Your task to perform on an android device: open app "Indeed Job Search" (install if not already installed) Image 0: 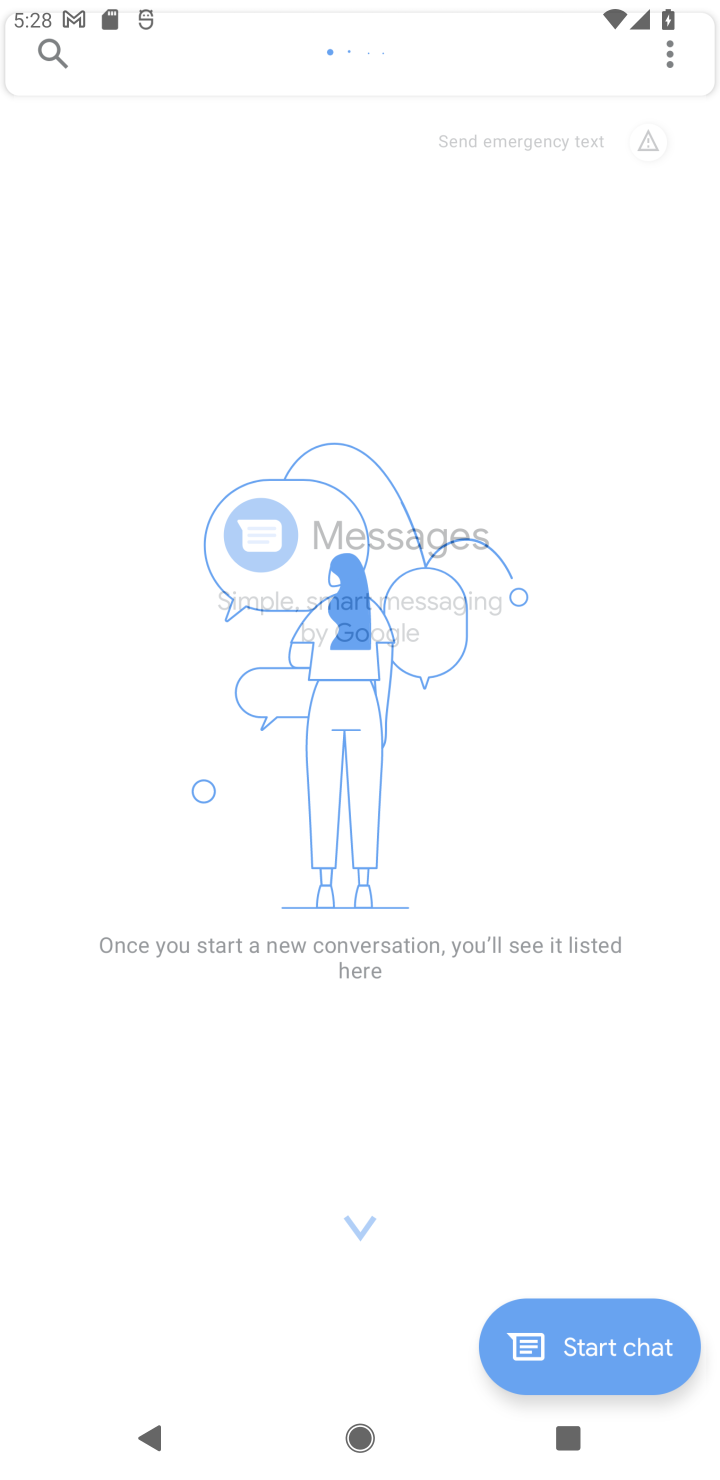
Step 0: press home button
Your task to perform on an android device: open app "Indeed Job Search" (install if not already installed) Image 1: 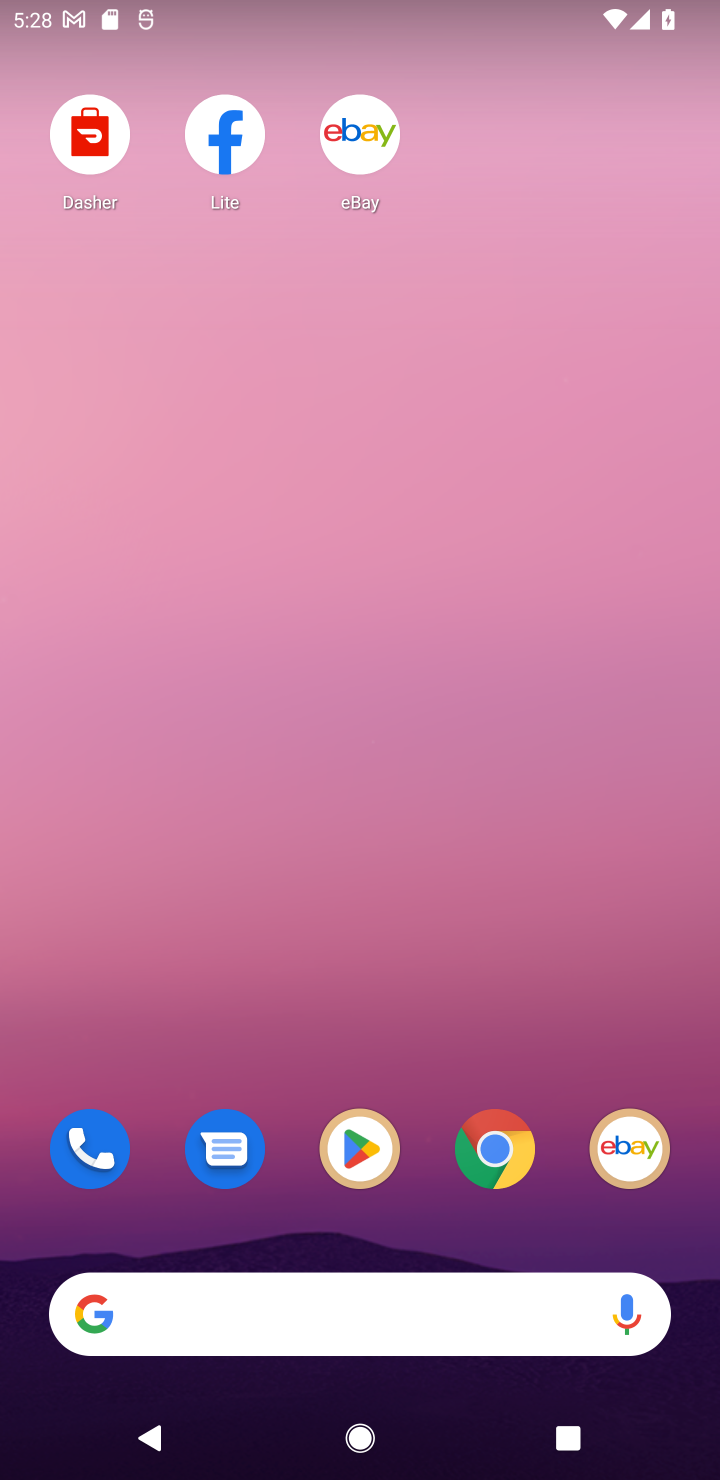
Step 1: press home button
Your task to perform on an android device: open app "Indeed Job Search" (install if not already installed) Image 2: 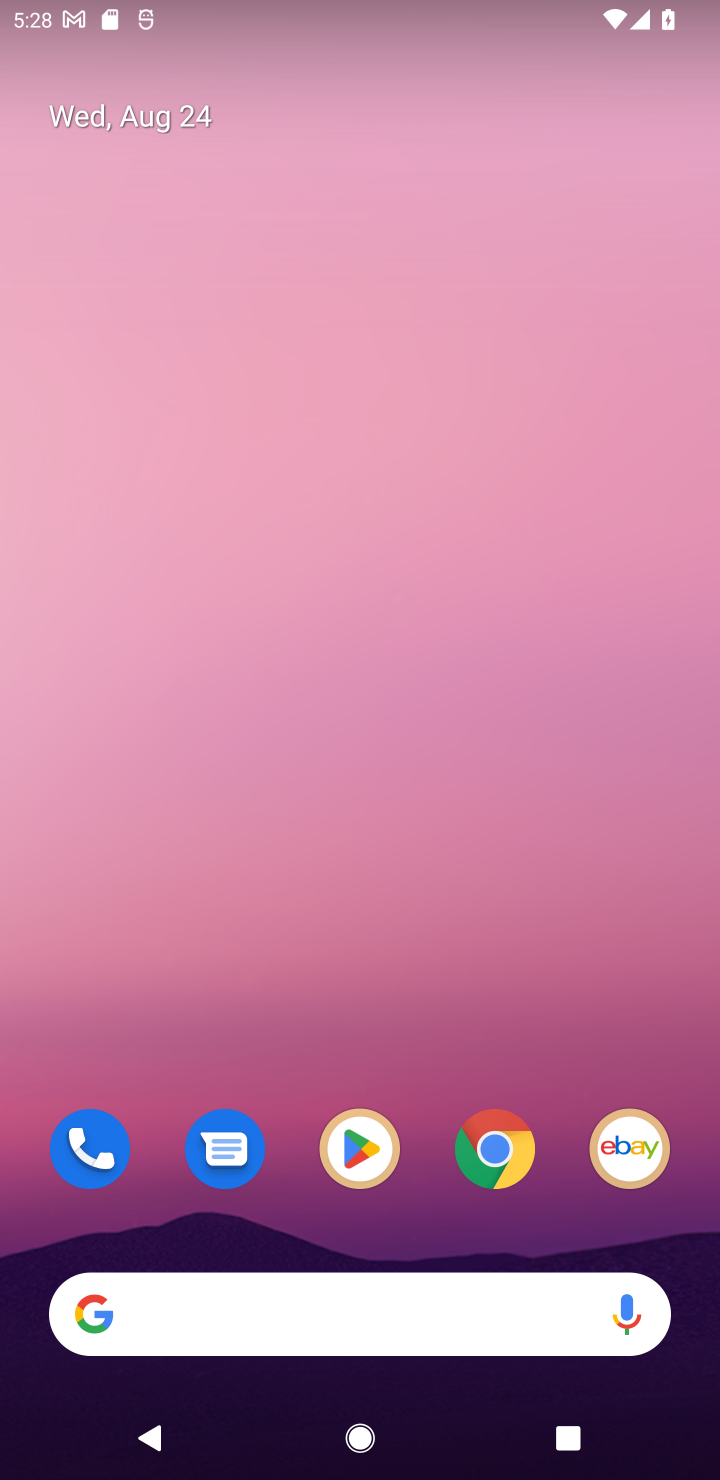
Step 2: click (357, 1145)
Your task to perform on an android device: open app "Indeed Job Search" (install if not already installed) Image 3: 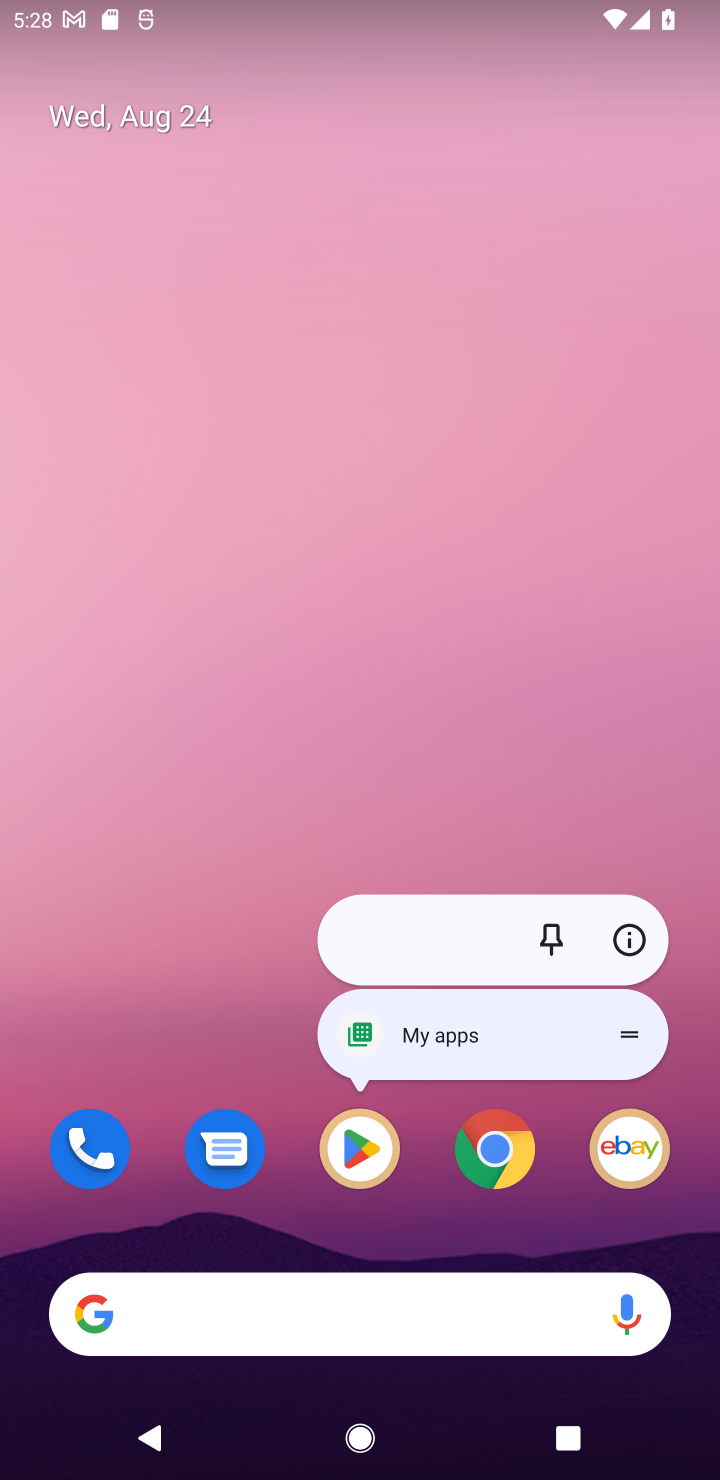
Step 3: click (357, 1149)
Your task to perform on an android device: open app "Indeed Job Search" (install if not already installed) Image 4: 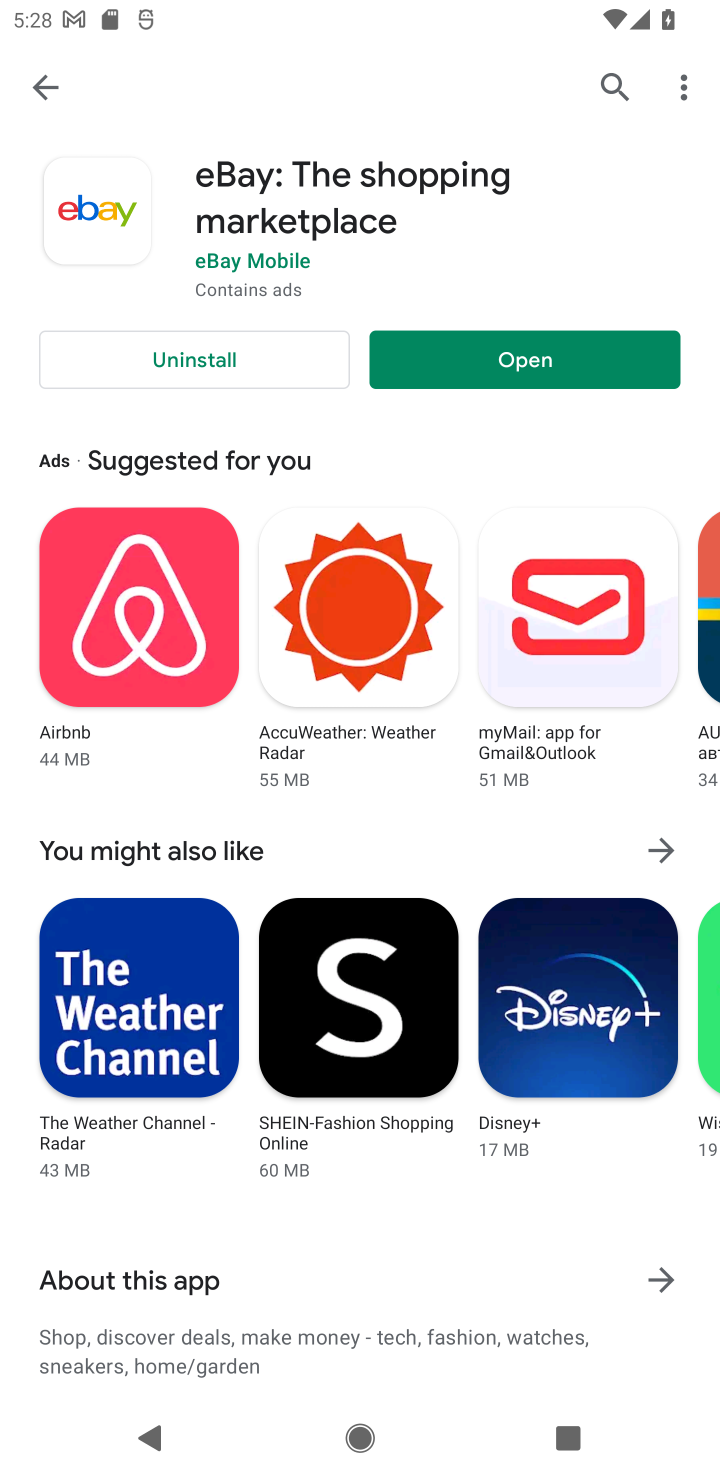
Step 4: click (607, 79)
Your task to perform on an android device: open app "Indeed Job Search" (install if not already installed) Image 5: 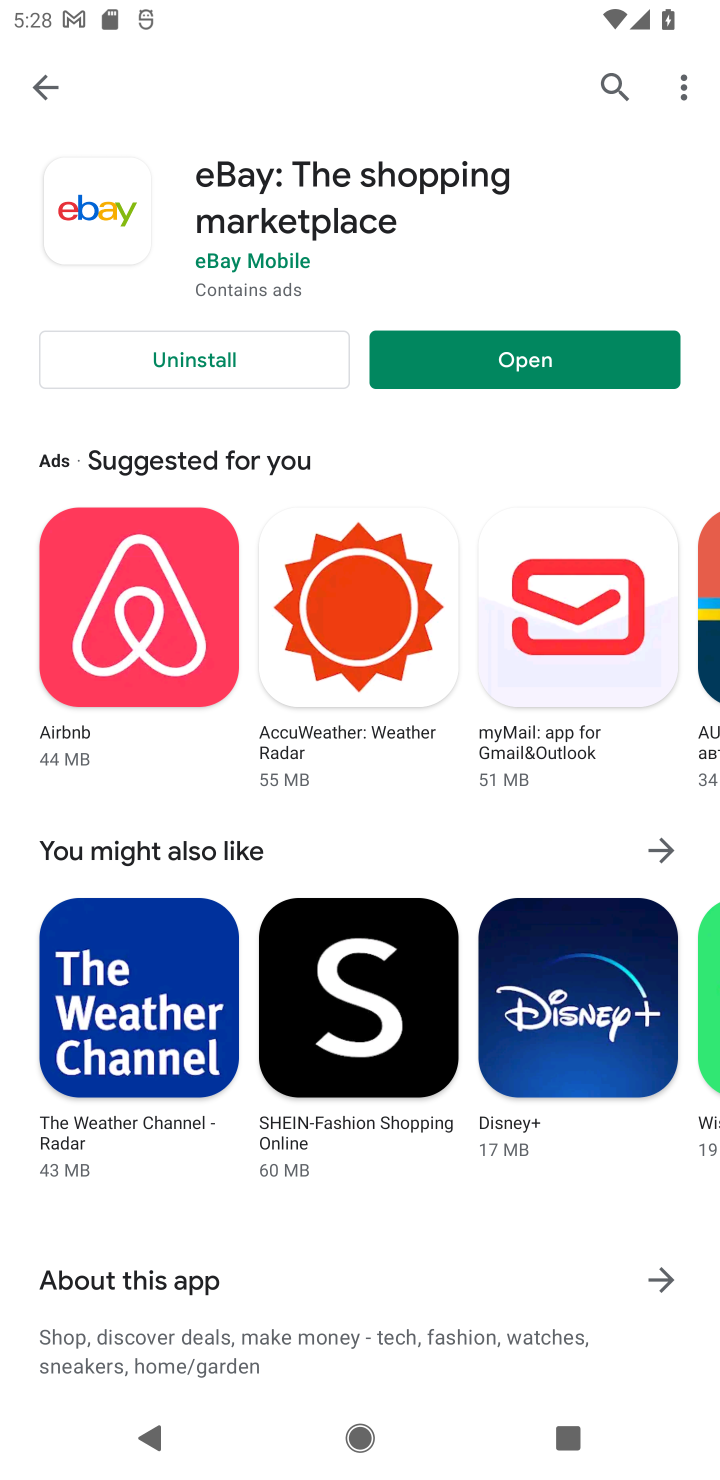
Step 5: click (601, 74)
Your task to perform on an android device: open app "Indeed Job Search" (install if not already installed) Image 6: 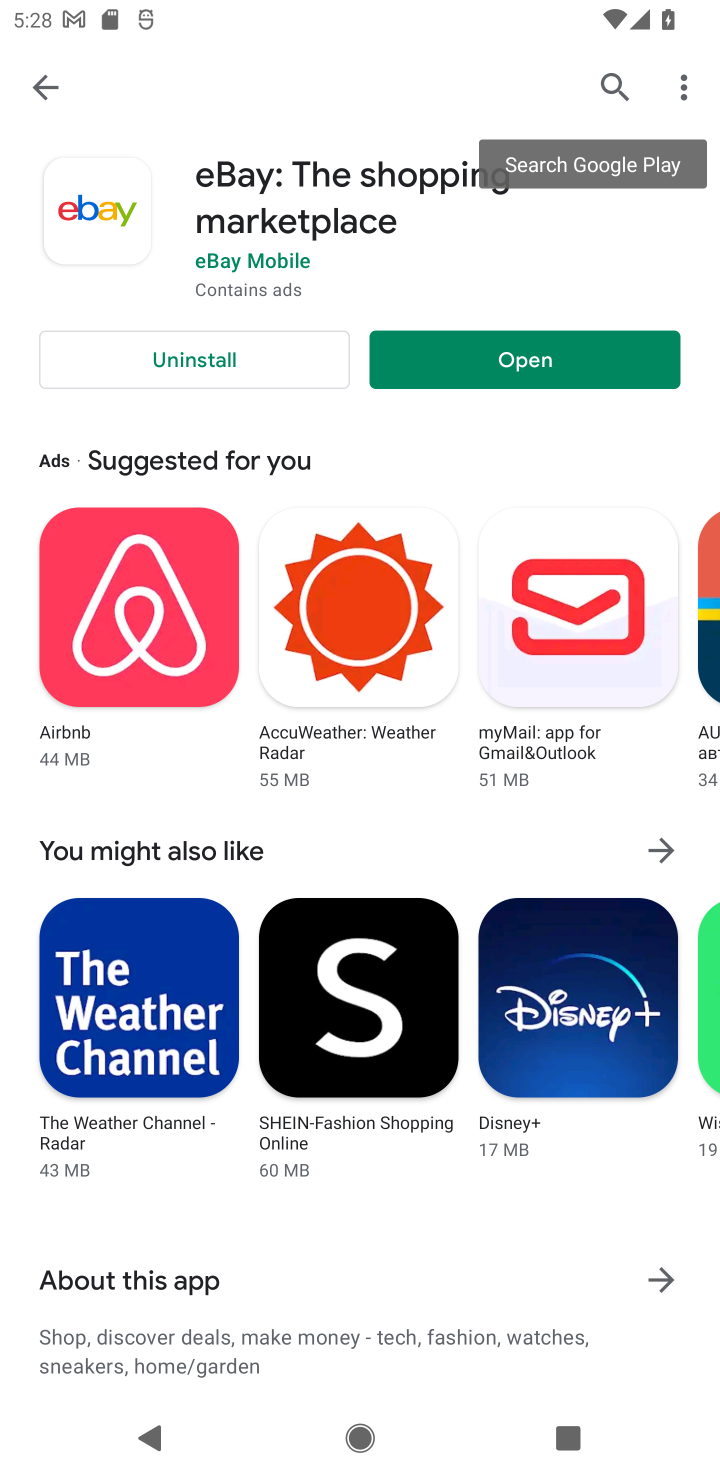
Step 6: click (601, 79)
Your task to perform on an android device: open app "Indeed Job Search" (install if not already installed) Image 7: 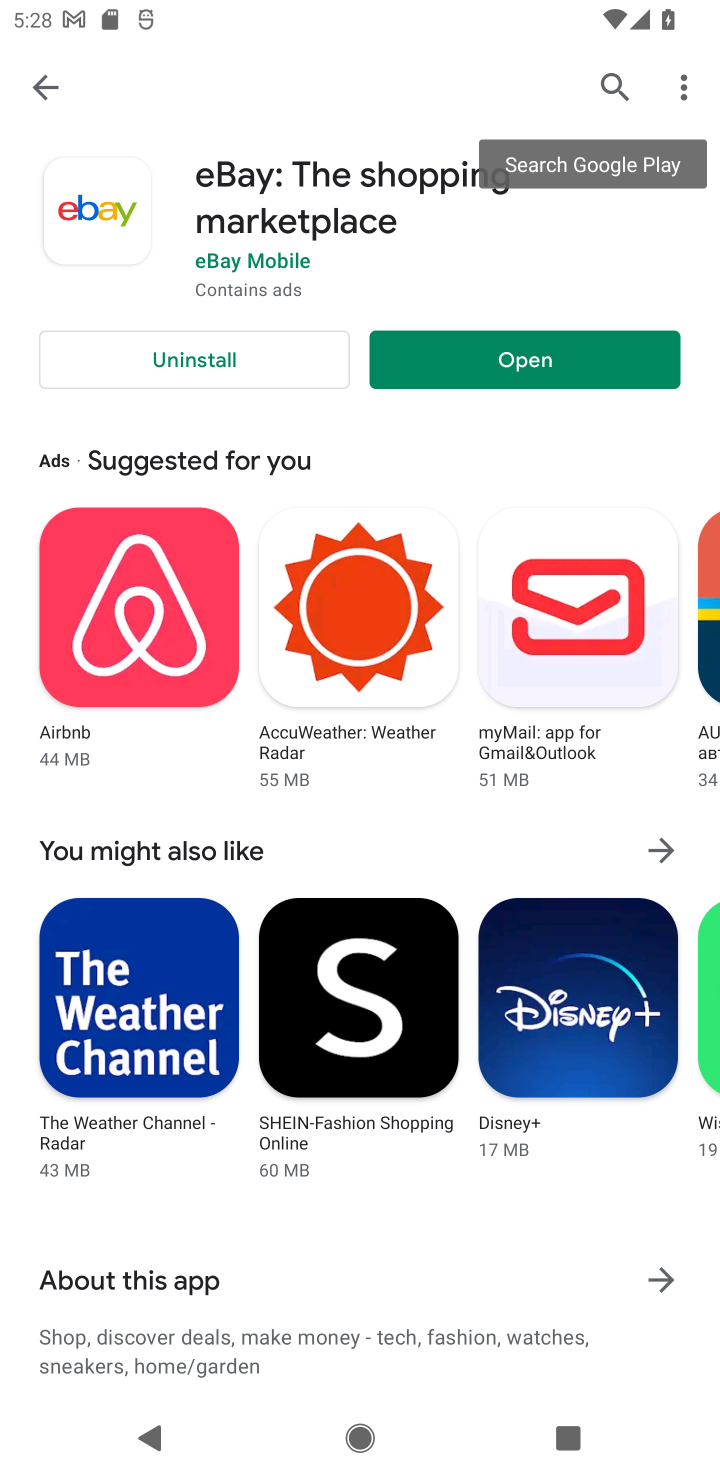
Step 7: click (608, 85)
Your task to perform on an android device: open app "Indeed Job Search" (install if not already installed) Image 8: 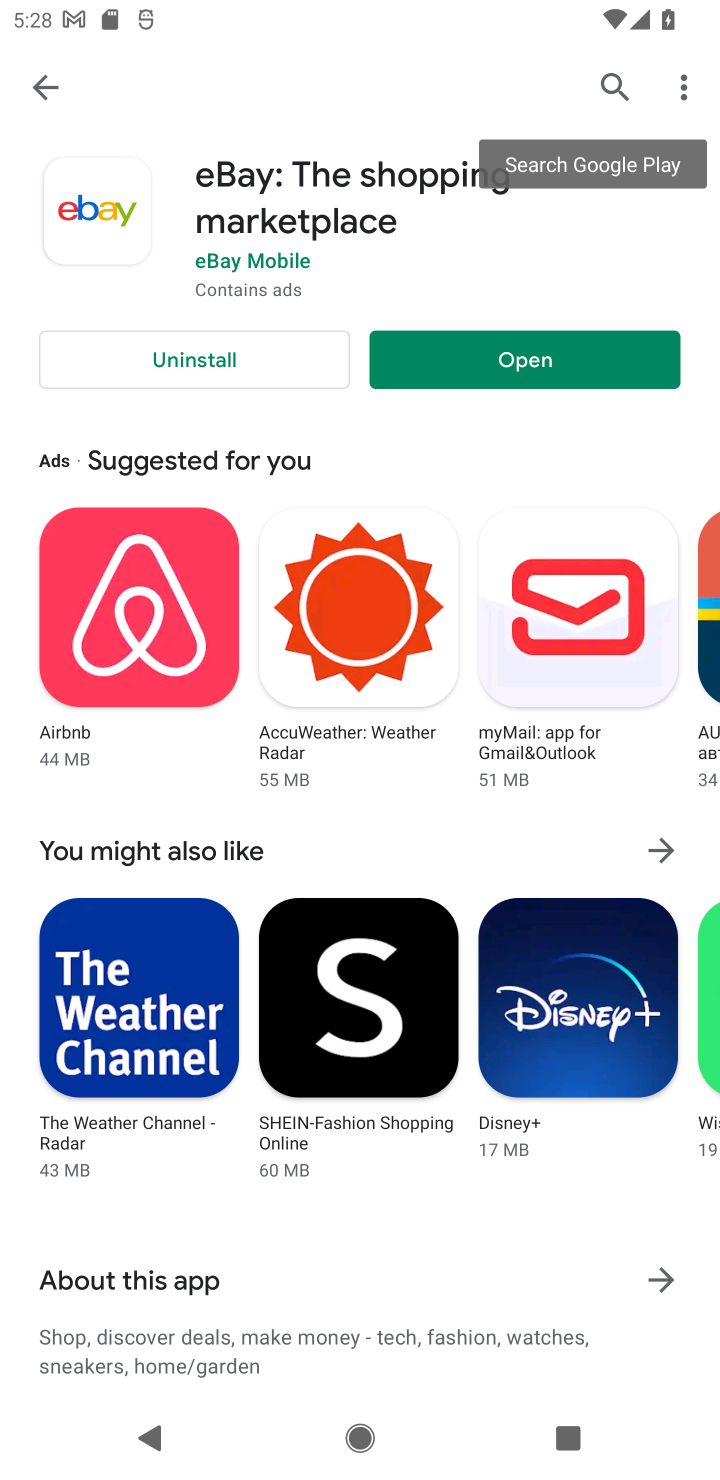
Step 8: click (572, 81)
Your task to perform on an android device: open app "Indeed Job Search" (install if not already installed) Image 9: 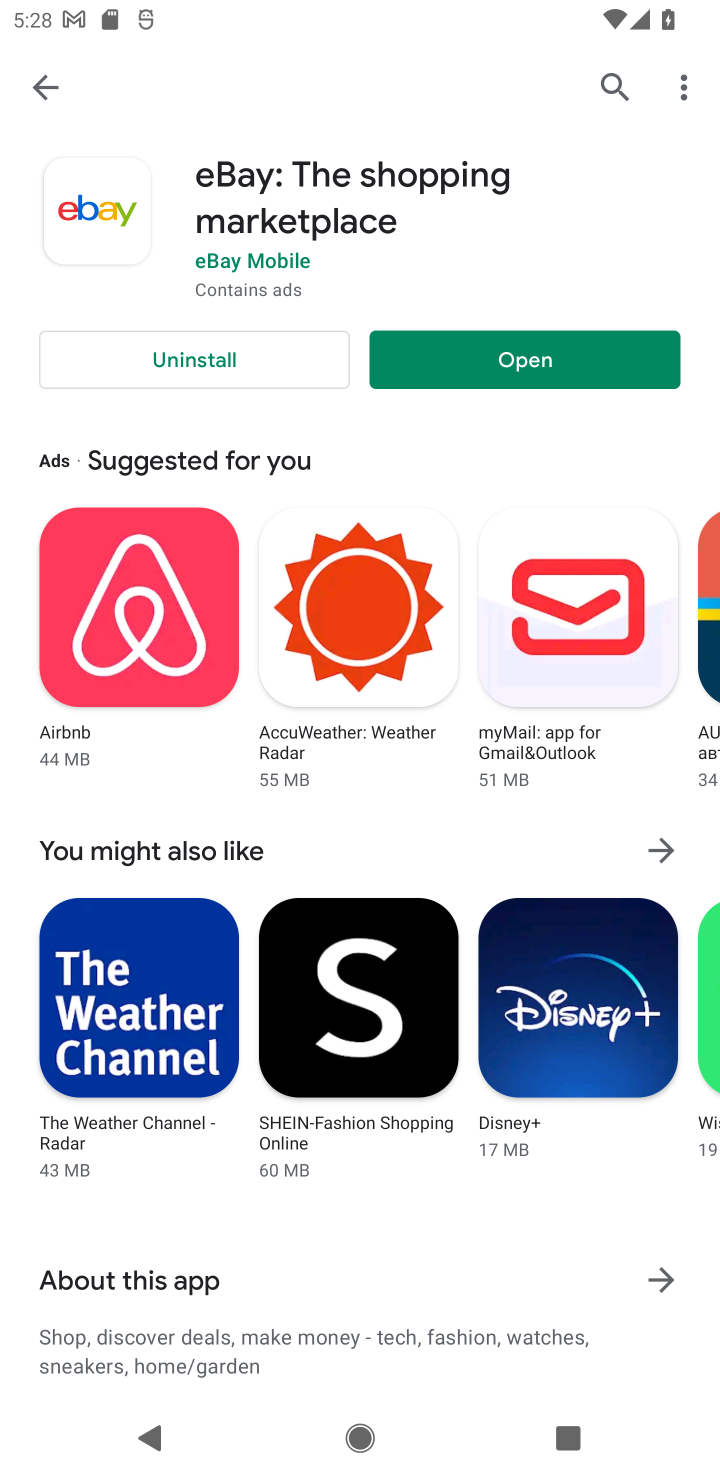
Step 9: press back button
Your task to perform on an android device: open app "Indeed Job Search" (install if not already installed) Image 10: 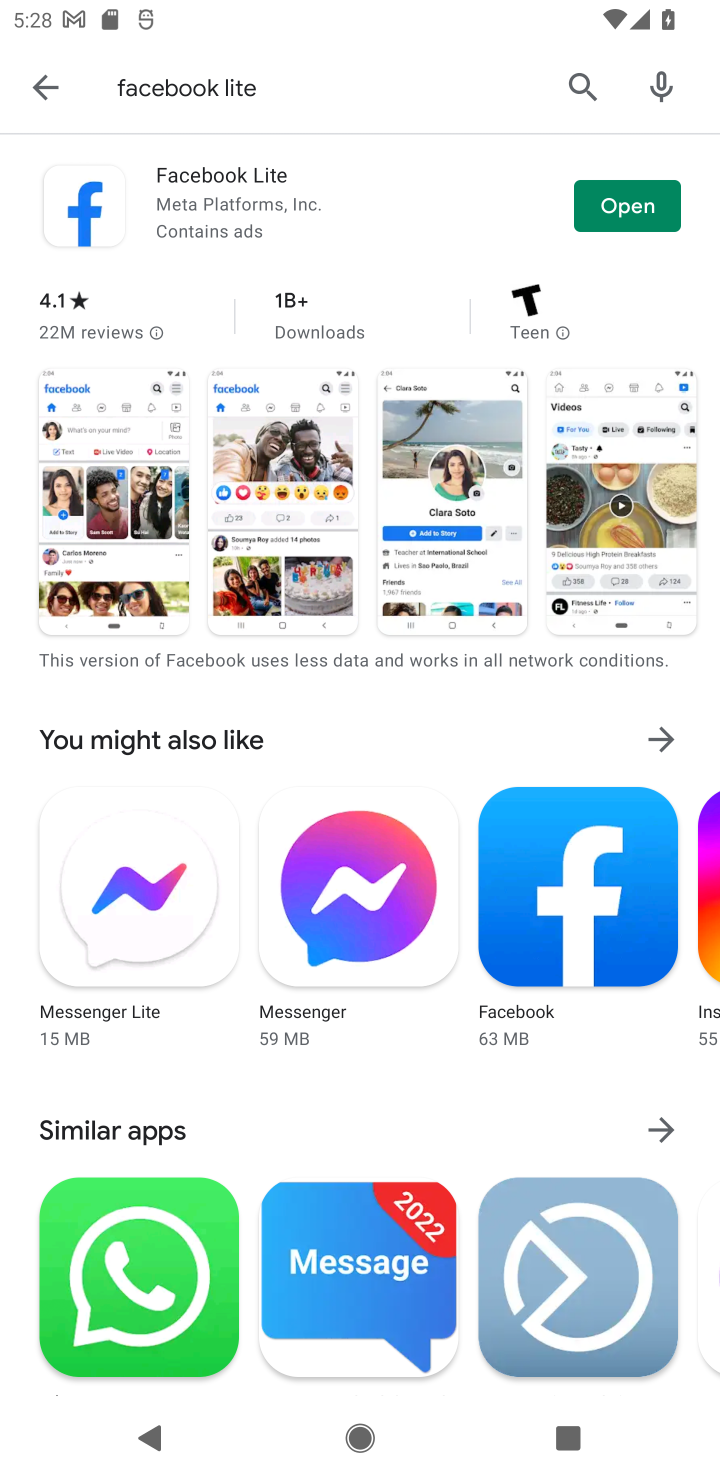
Step 10: click (567, 80)
Your task to perform on an android device: open app "Indeed Job Search" (install if not already installed) Image 11: 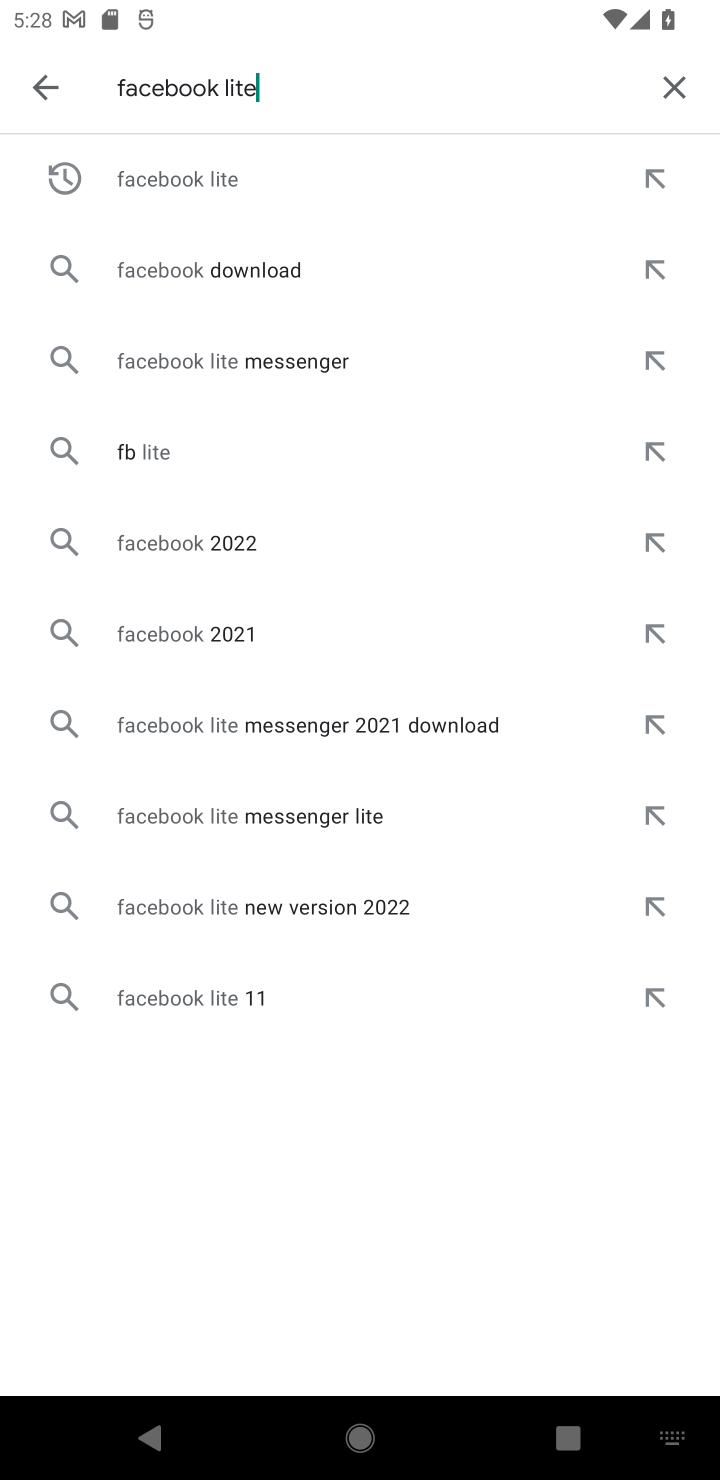
Step 11: click (675, 81)
Your task to perform on an android device: open app "Indeed Job Search" (install if not already installed) Image 12: 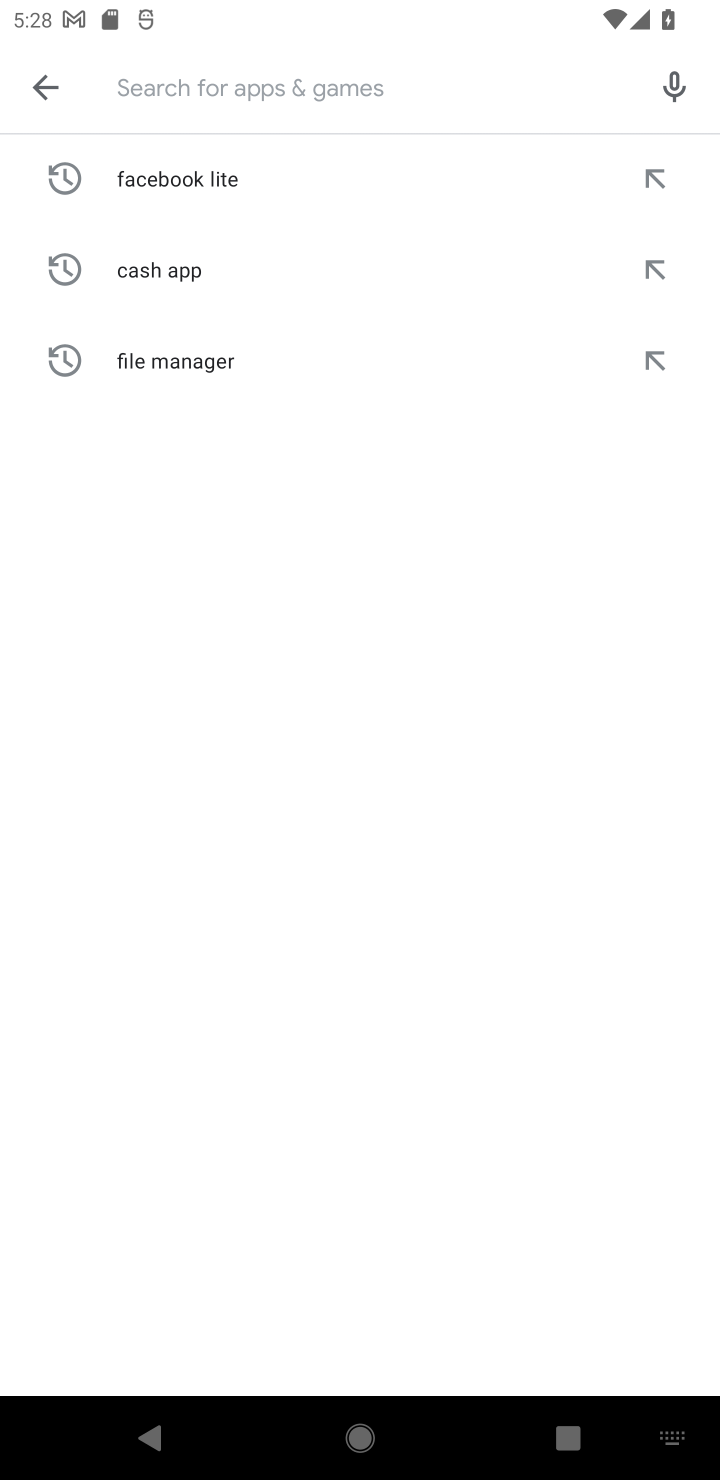
Step 12: type "Indeed Job Search"
Your task to perform on an android device: open app "Indeed Job Search" (install if not already installed) Image 13: 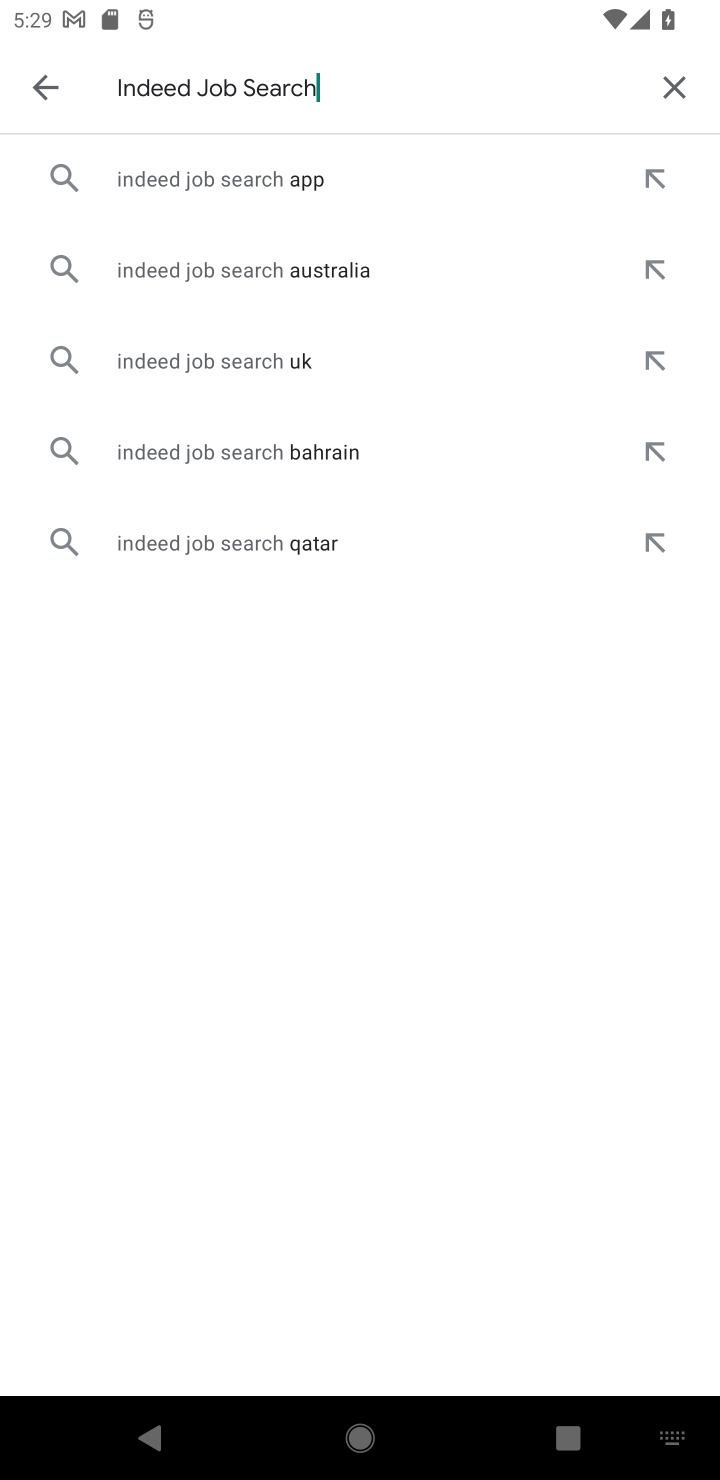
Step 13: click (188, 182)
Your task to perform on an android device: open app "Indeed Job Search" (install if not already installed) Image 14: 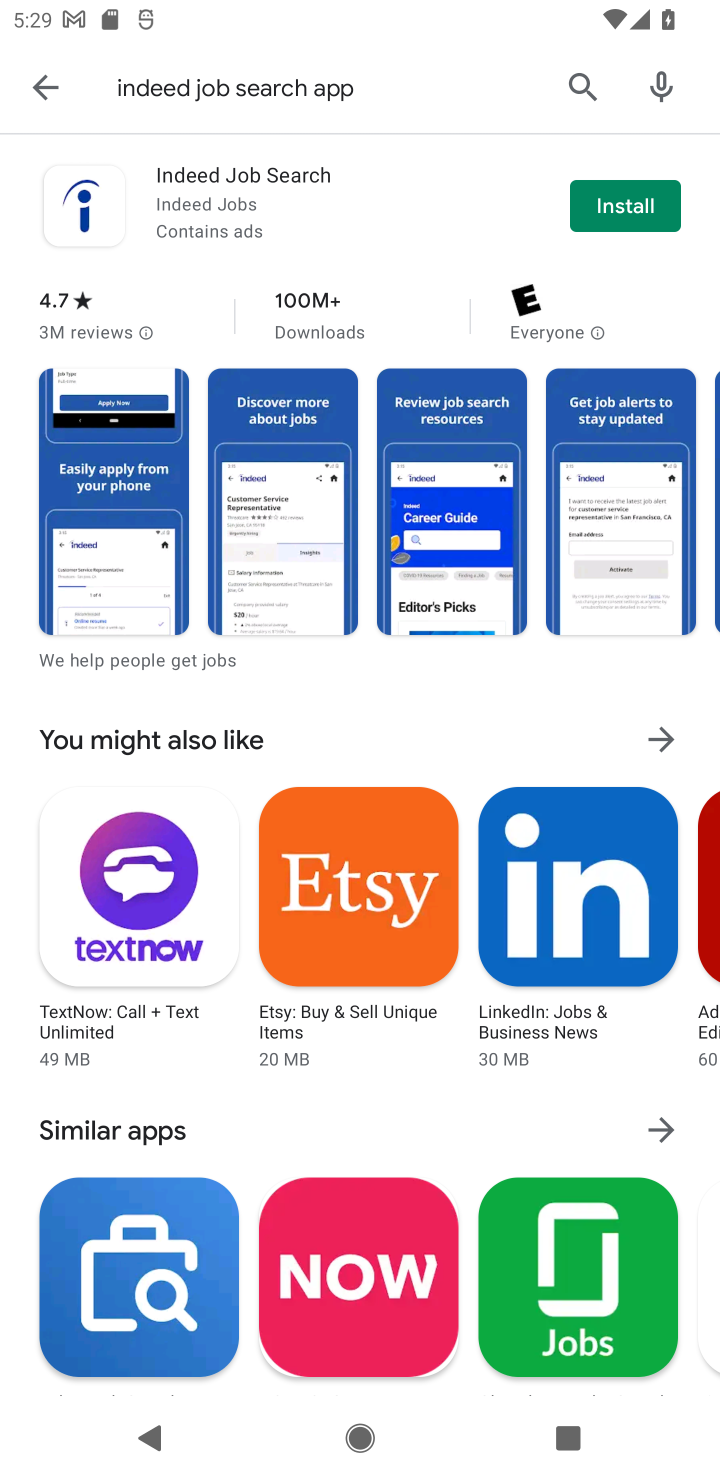
Step 14: click (634, 216)
Your task to perform on an android device: open app "Indeed Job Search" (install if not already installed) Image 15: 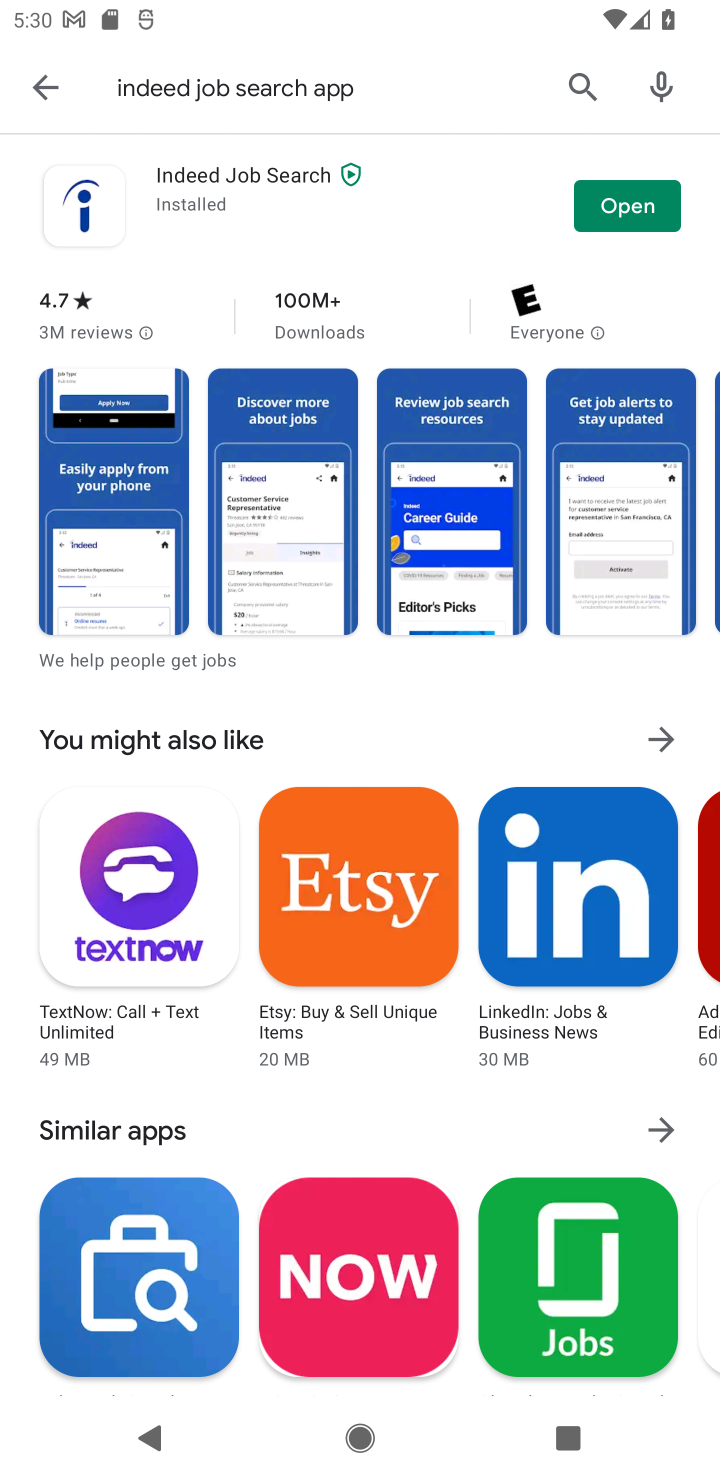
Step 15: click (598, 202)
Your task to perform on an android device: open app "Indeed Job Search" (install if not already installed) Image 16: 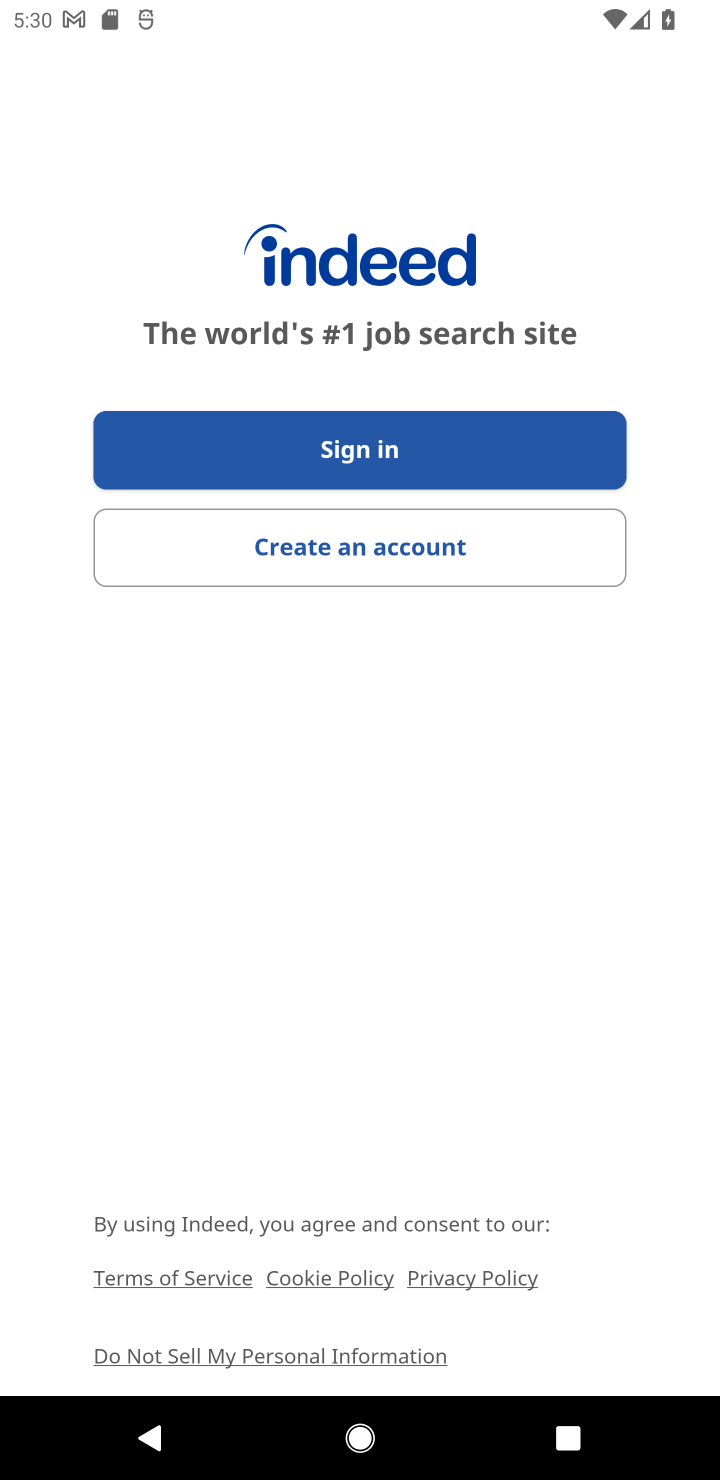
Step 16: task complete